Your task to perform on an android device: turn on wifi Image 0: 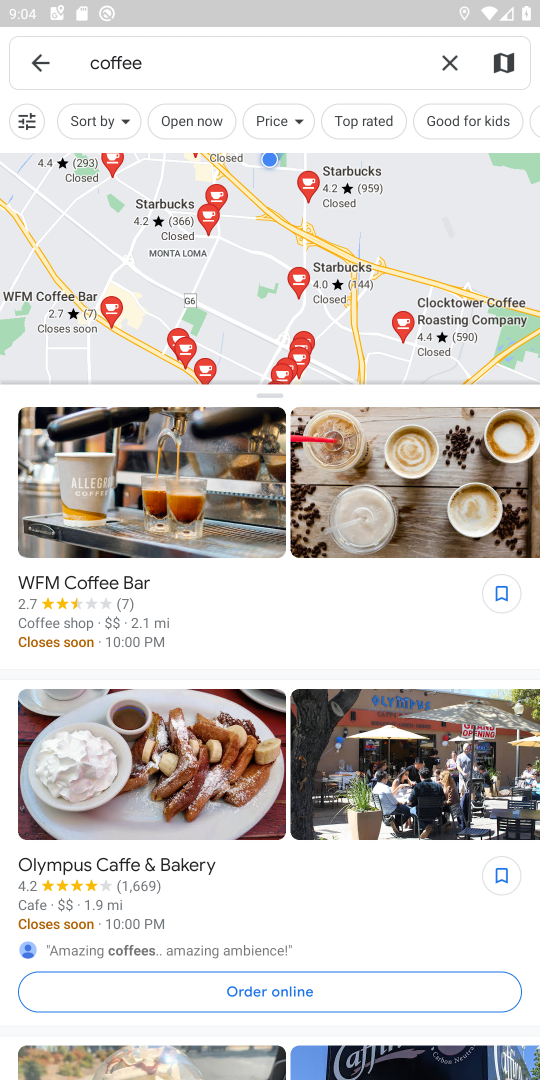
Step 0: task complete